Your task to perform on an android device: read, delete, or share a saved page in the chrome app Image 0: 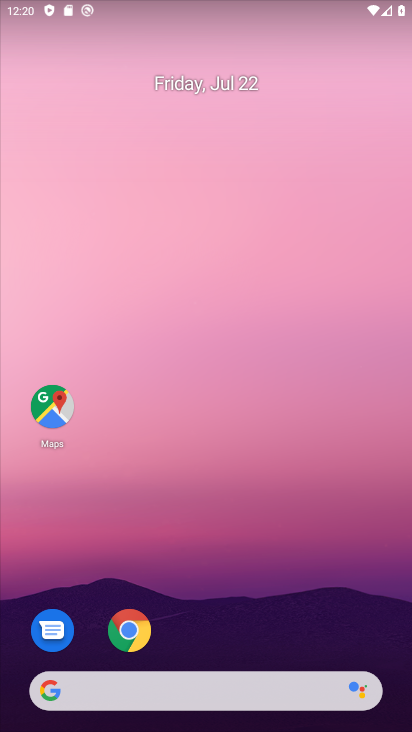
Step 0: drag from (393, 639) to (322, 120)
Your task to perform on an android device: read, delete, or share a saved page in the chrome app Image 1: 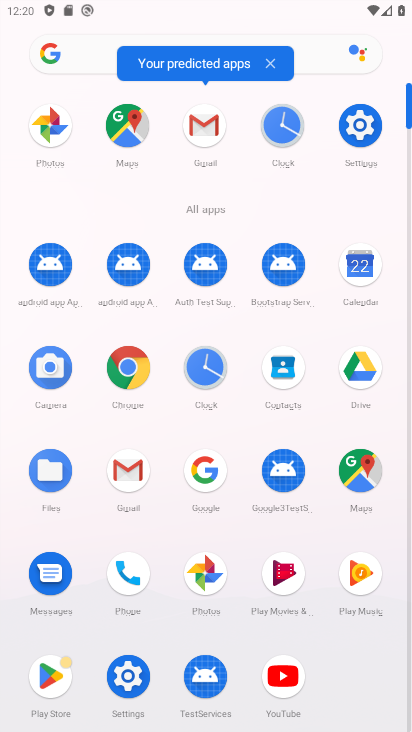
Step 1: click (141, 377)
Your task to perform on an android device: read, delete, or share a saved page in the chrome app Image 2: 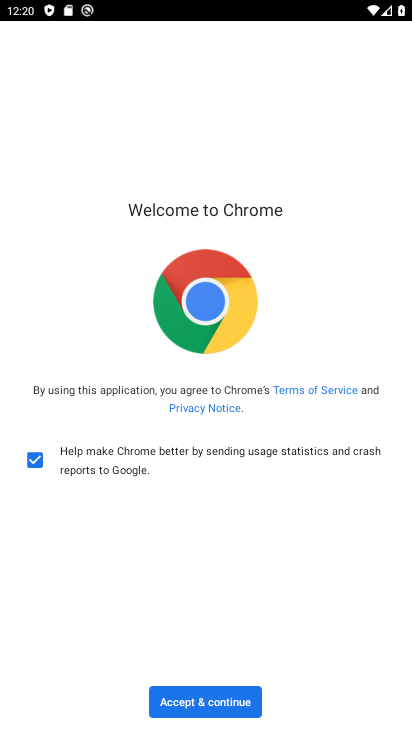
Step 2: click (188, 704)
Your task to perform on an android device: read, delete, or share a saved page in the chrome app Image 3: 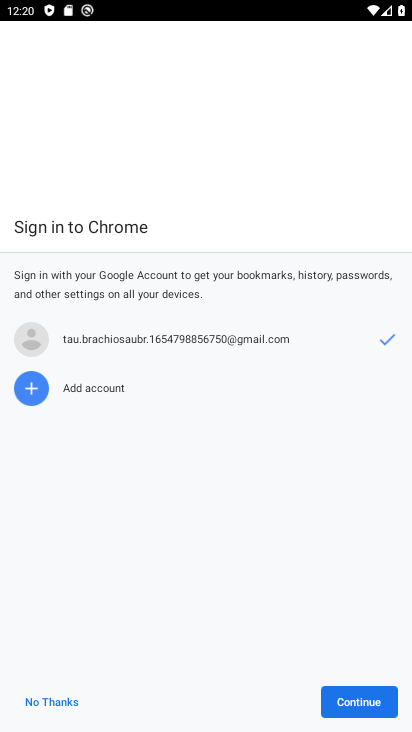
Step 3: click (346, 710)
Your task to perform on an android device: read, delete, or share a saved page in the chrome app Image 4: 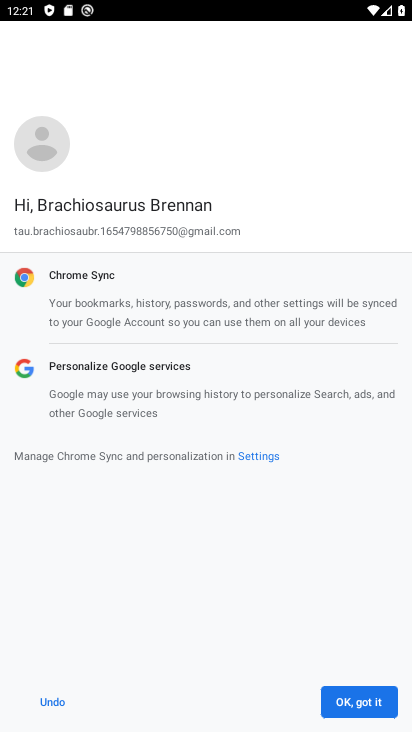
Step 4: click (359, 710)
Your task to perform on an android device: read, delete, or share a saved page in the chrome app Image 5: 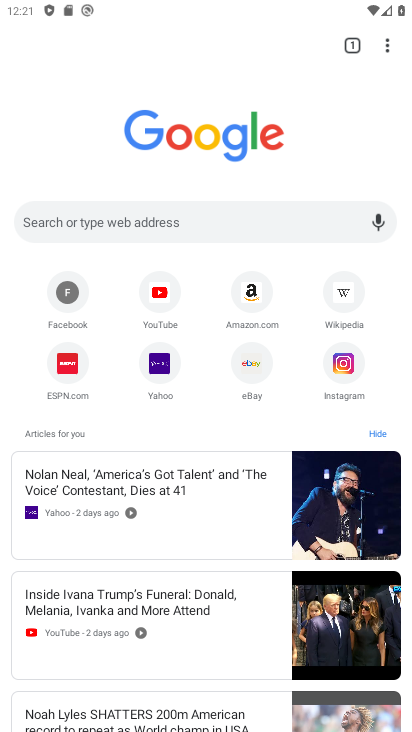
Step 5: click (386, 46)
Your task to perform on an android device: read, delete, or share a saved page in the chrome app Image 6: 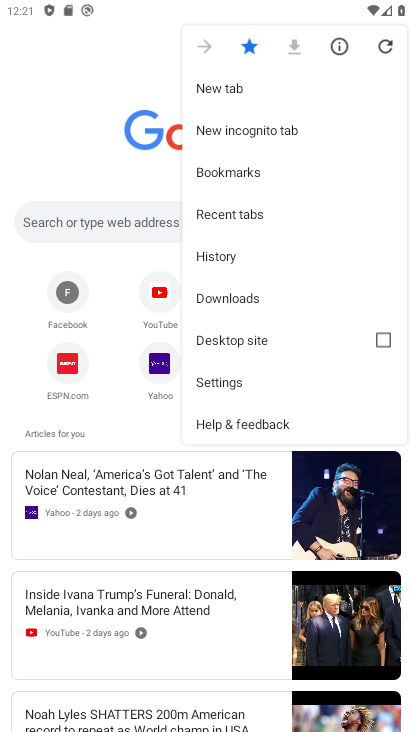
Step 6: click (245, 303)
Your task to perform on an android device: read, delete, or share a saved page in the chrome app Image 7: 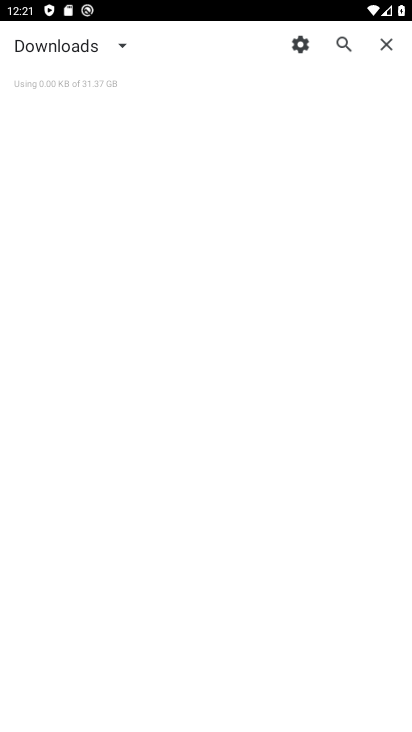
Step 7: click (115, 55)
Your task to perform on an android device: read, delete, or share a saved page in the chrome app Image 8: 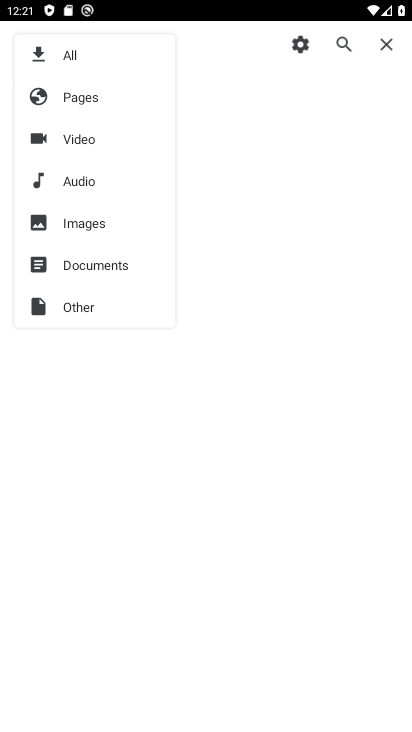
Step 8: click (102, 107)
Your task to perform on an android device: read, delete, or share a saved page in the chrome app Image 9: 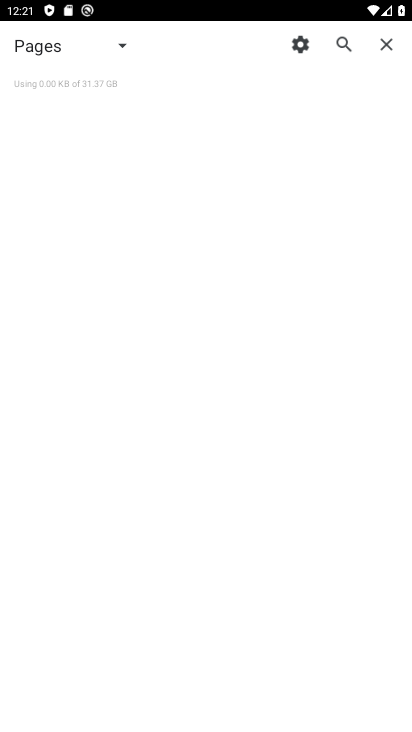
Step 9: task complete